Your task to perform on an android device: Add "macbook pro 15 inch" to the cart on target.com Image 0: 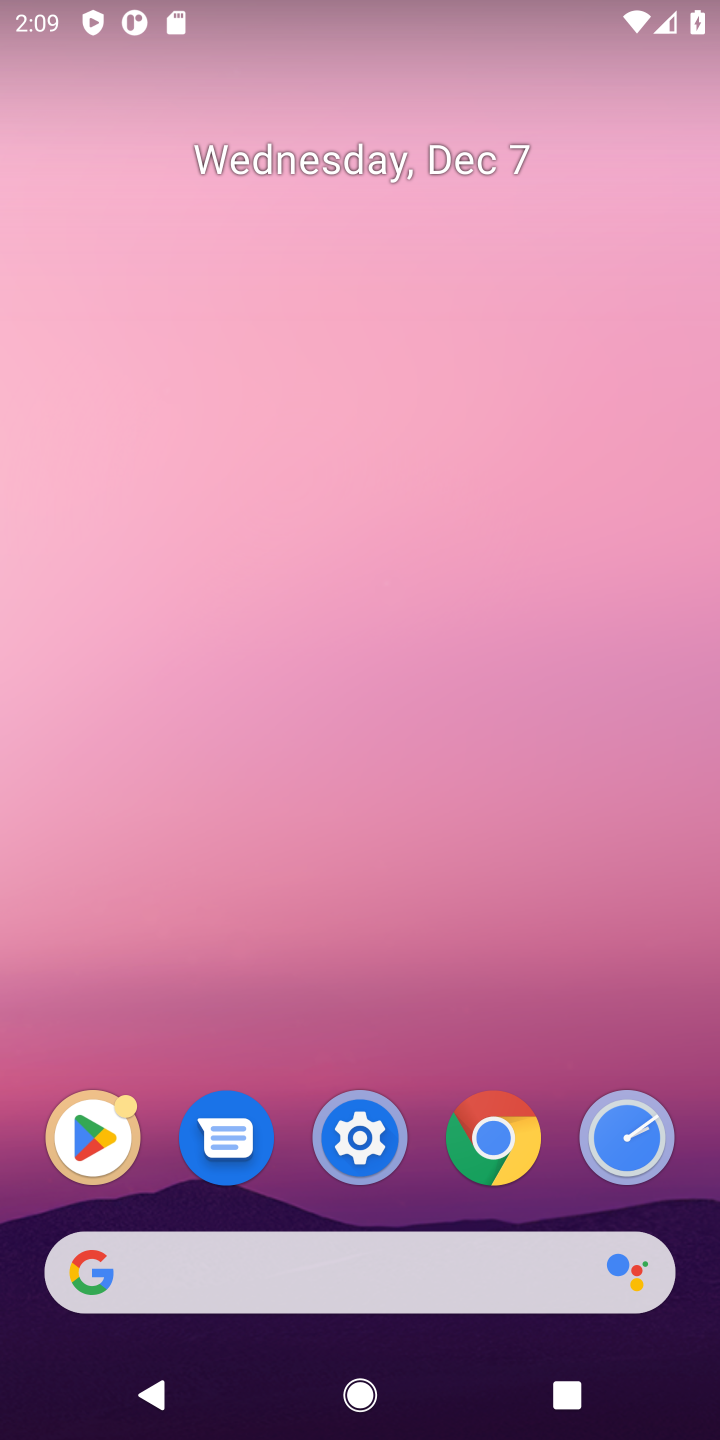
Step 0: click (299, 1287)
Your task to perform on an android device: Add "macbook pro 15 inch" to the cart on target.com Image 1: 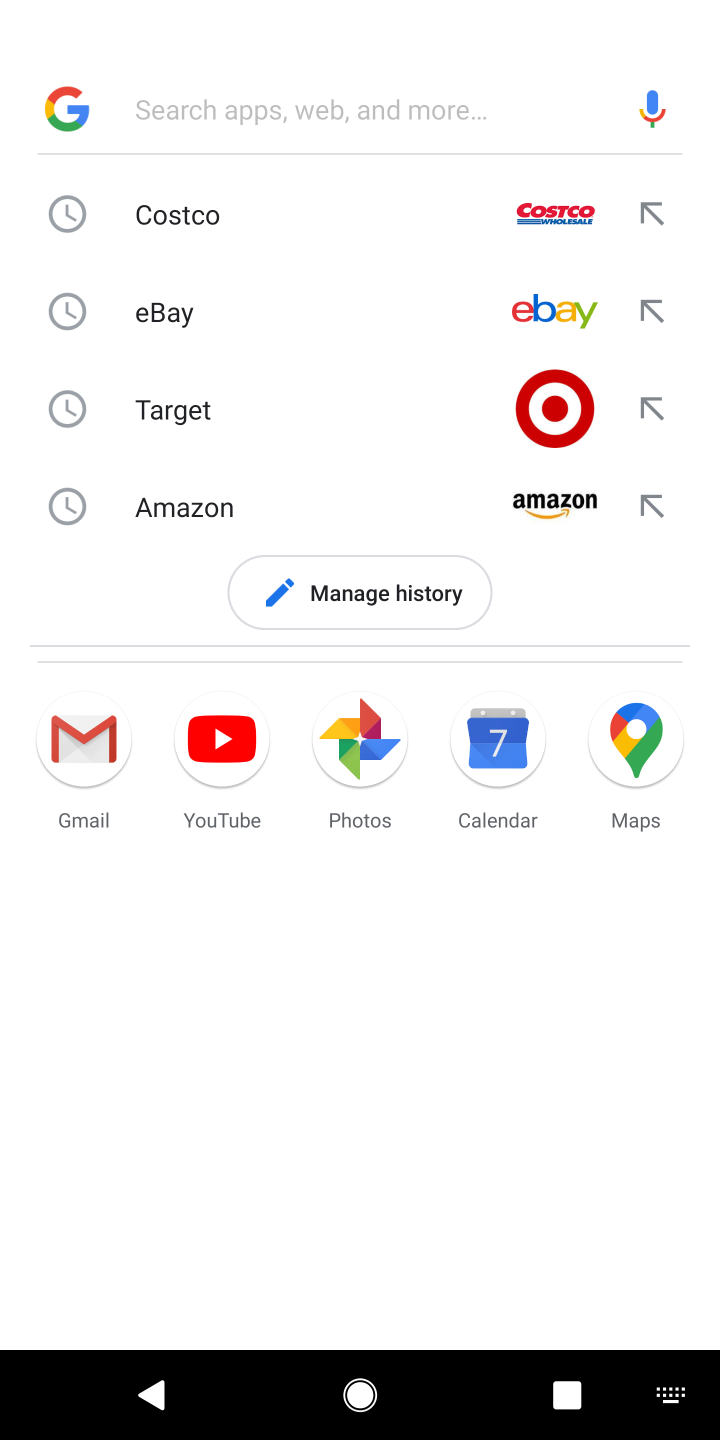
Step 1: type "macbook pro 15"
Your task to perform on an android device: Add "macbook pro 15 inch" to the cart on target.com Image 2: 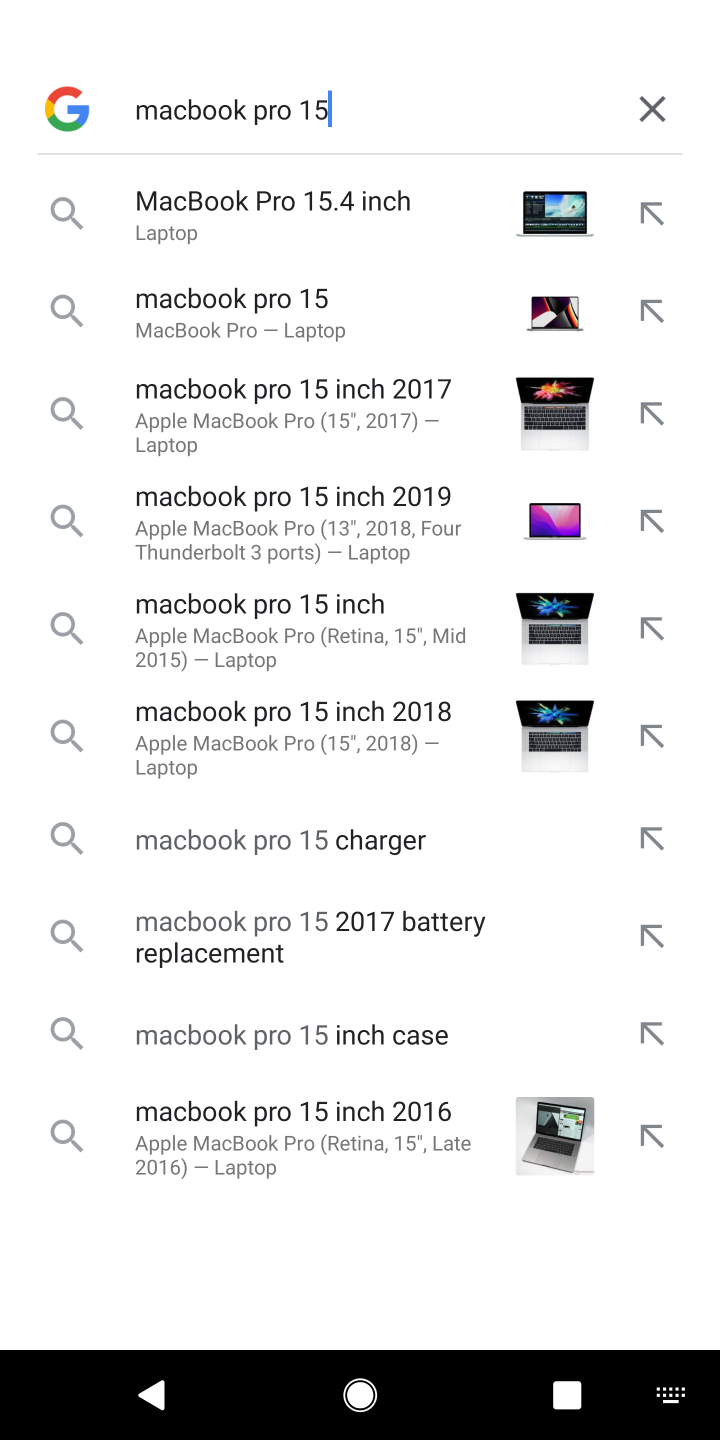
Step 2: task complete